Your task to perform on an android device: make emails show in primary in the gmail app Image 0: 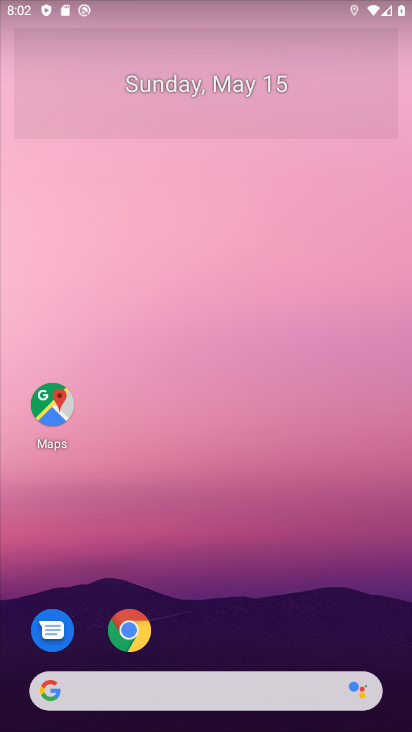
Step 0: drag from (228, 637) to (292, 136)
Your task to perform on an android device: make emails show in primary in the gmail app Image 1: 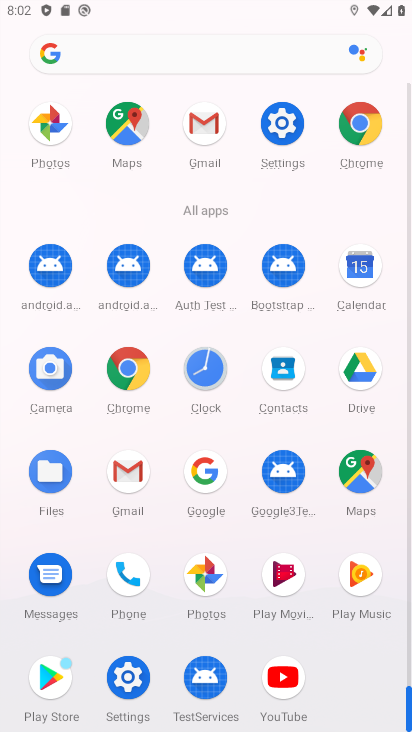
Step 1: click (126, 484)
Your task to perform on an android device: make emails show in primary in the gmail app Image 2: 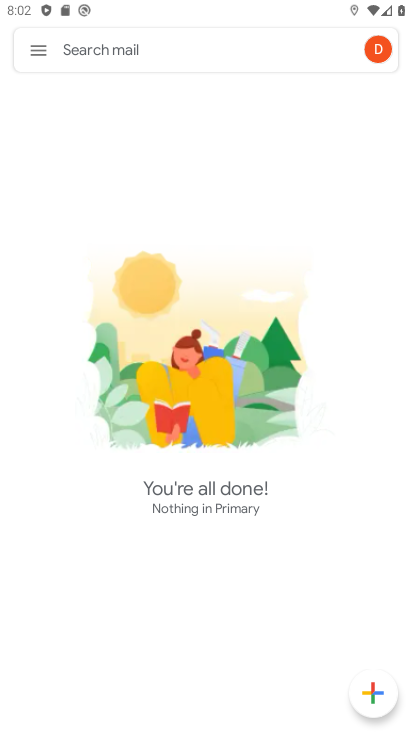
Step 2: click (49, 53)
Your task to perform on an android device: make emails show in primary in the gmail app Image 3: 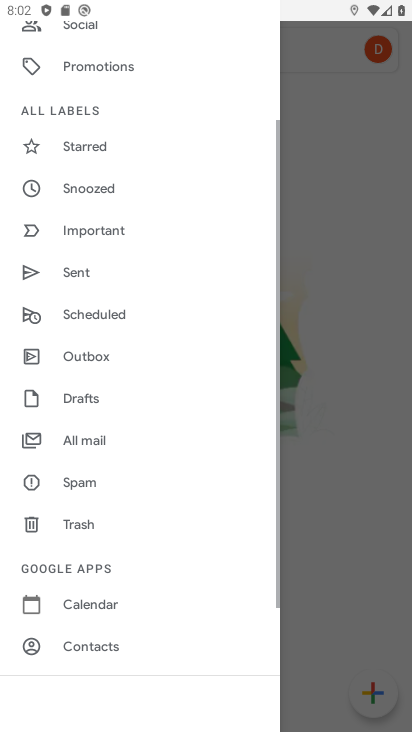
Step 3: drag from (152, 472) to (160, 168)
Your task to perform on an android device: make emails show in primary in the gmail app Image 4: 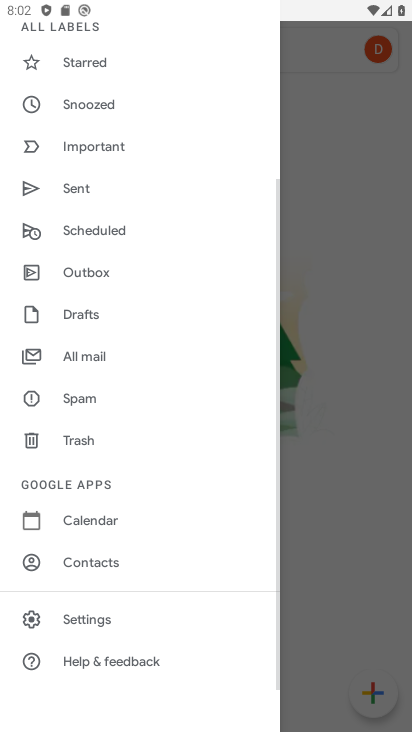
Step 4: click (65, 627)
Your task to perform on an android device: make emails show in primary in the gmail app Image 5: 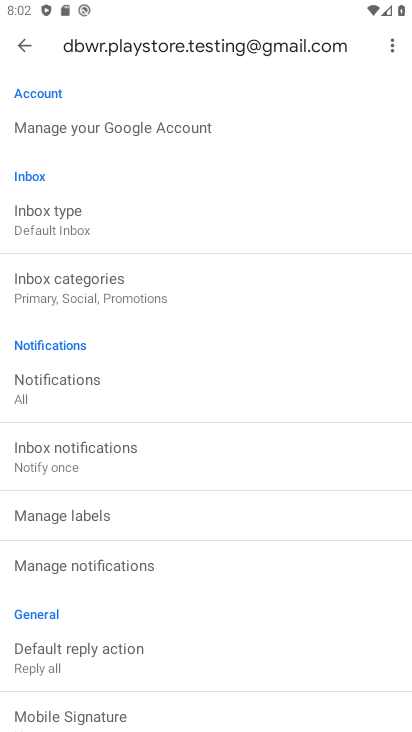
Step 5: click (90, 217)
Your task to perform on an android device: make emails show in primary in the gmail app Image 6: 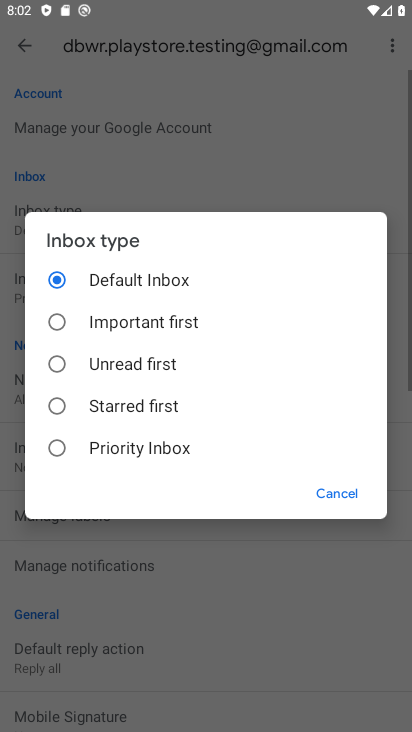
Step 6: click (165, 269)
Your task to perform on an android device: make emails show in primary in the gmail app Image 7: 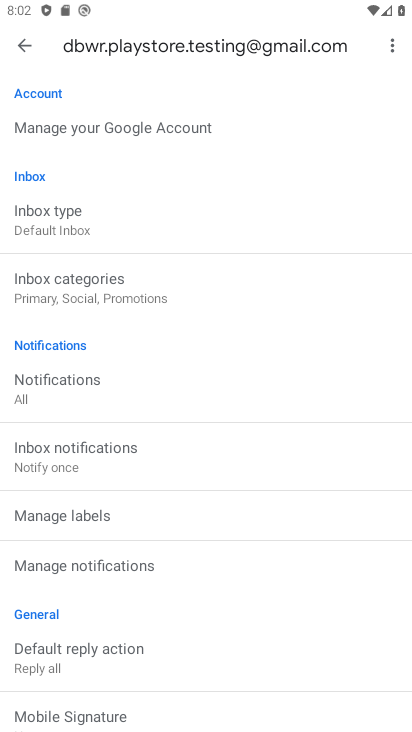
Step 7: click (67, 303)
Your task to perform on an android device: make emails show in primary in the gmail app Image 8: 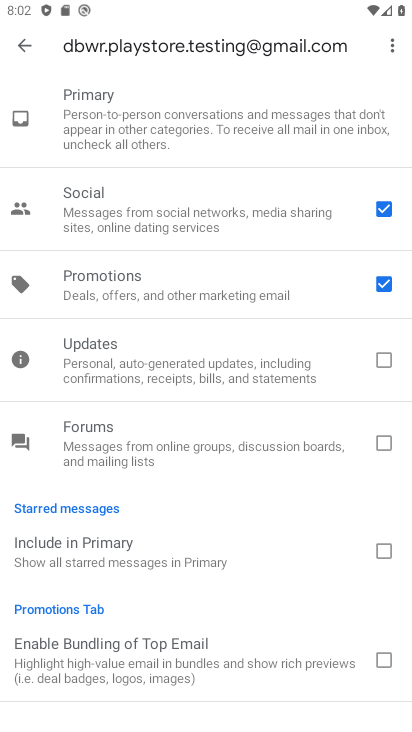
Step 8: click (373, 287)
Your task to perform on an android device: make emails show in primary in the gmail app Image 9: 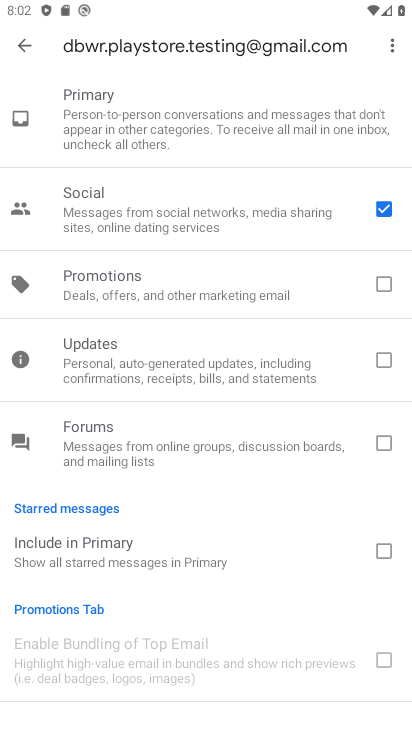
Step 9: click (373, 211)
Your task to perform on an android device: make emails show in primary in the gmail app Image 10: 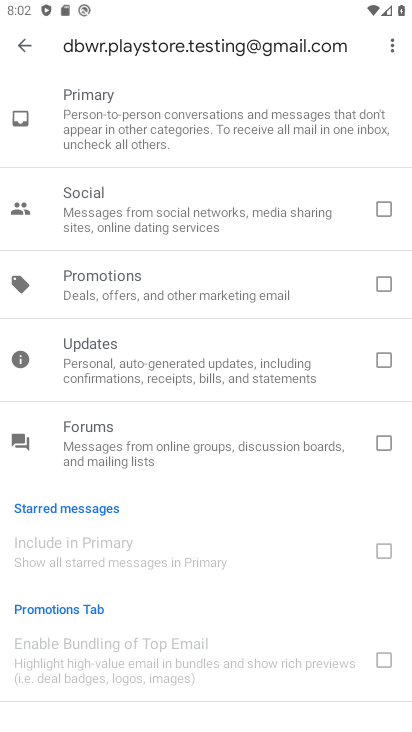
Step 10: task complete